Your task to perform on an android device: Go to calendar. Show me events next week Image 0: 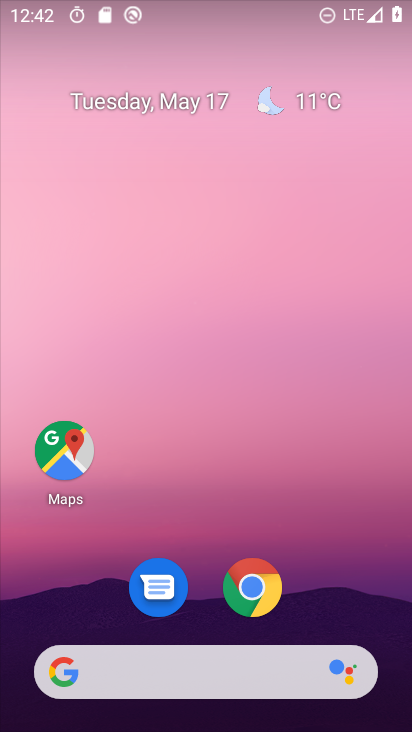
Step 0: click (300, 145)
Your task to perform on an android device: Go to calendar. Show me events next week Image 1: 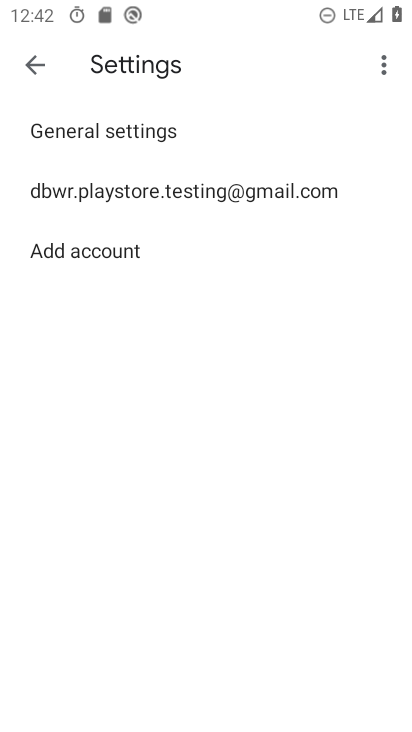
Step 1: press home button
Your task to perform on an android device: Go to calendar. Show me events next week Image 2: 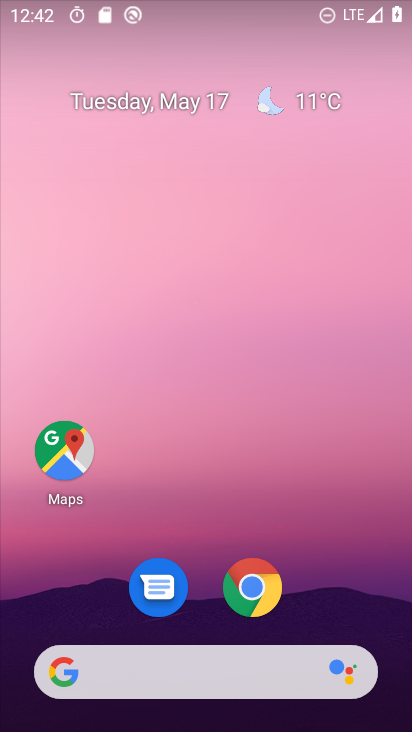
Step 2: drag from (199, 593) to (200, 26)
Your task to perform on an android device: Go to calendar. Show me events next week Image 3: 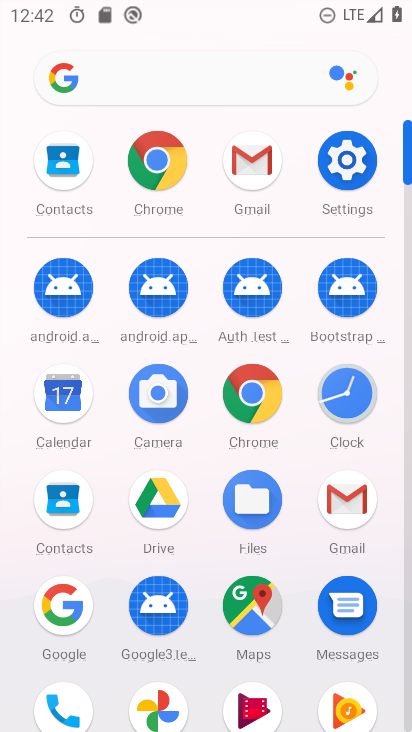
Step 3: click (66, 405)
Your task to perform on an android device: Go to calendar. Show me events next week Image 4: 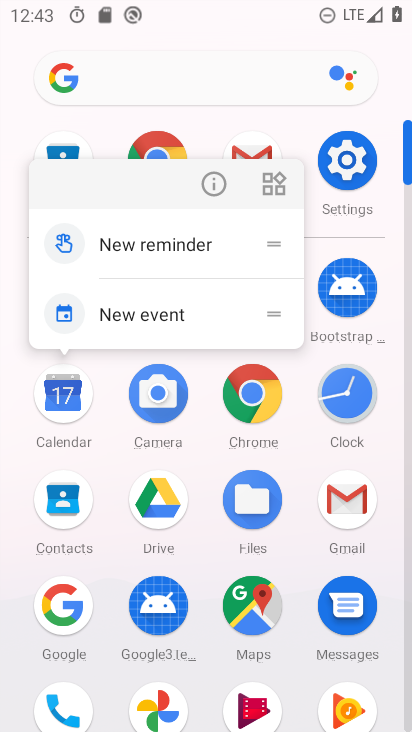
Step 4: click (195, 188)
Your task to perform on an android device: Go to calendar. Show me events next week Image 5: 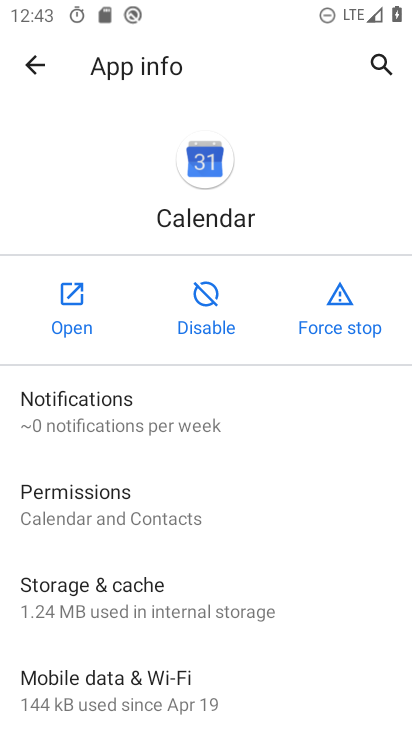
Step 5: click (62, 284)
Your task to perform on an android device: Go to calendar. Show me events next week Image 6: 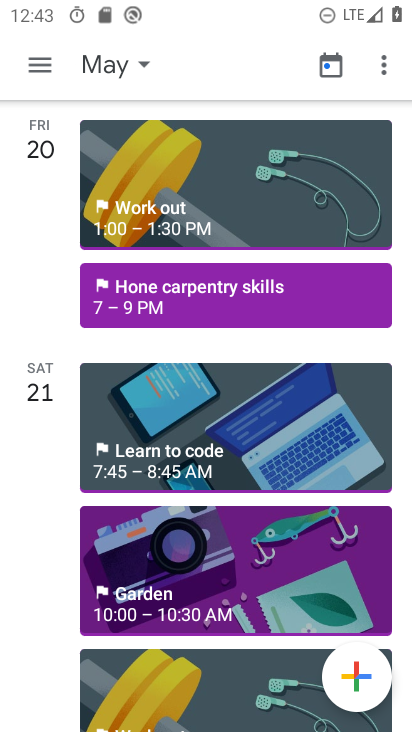
Step 6: drag from (239, 243) to (370, 728)
Your task to perform on an android device: Go to calendar. Show me events next week Image 7: 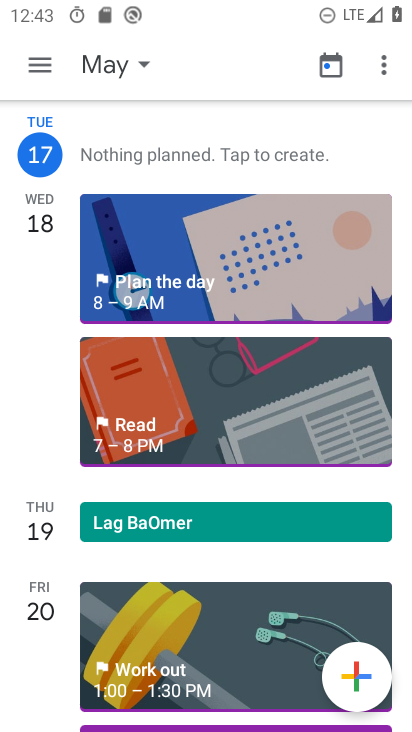
Step 7: click (133, 73)
Your task to perform on an android device: Go to calendar. Show me events next week Image 8: 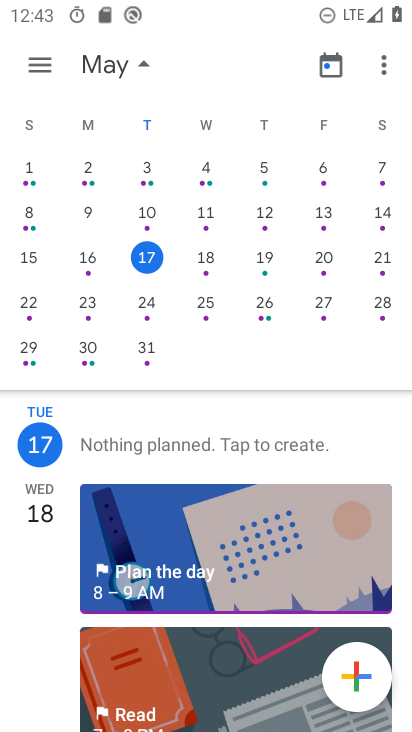
Step 8: click (203, 302)
Your task to perform on an android device: Go to calendar. Show me events next week Image 9: 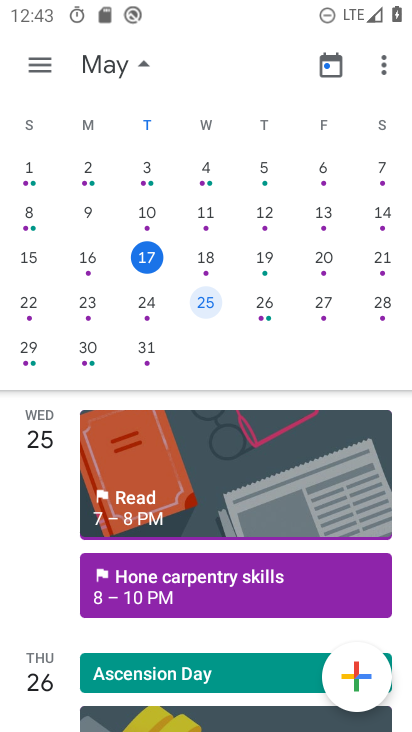
Step 9: task complete